Your task to perform on an android device: read, delete, or share a saved page in the chrome app Image 0: 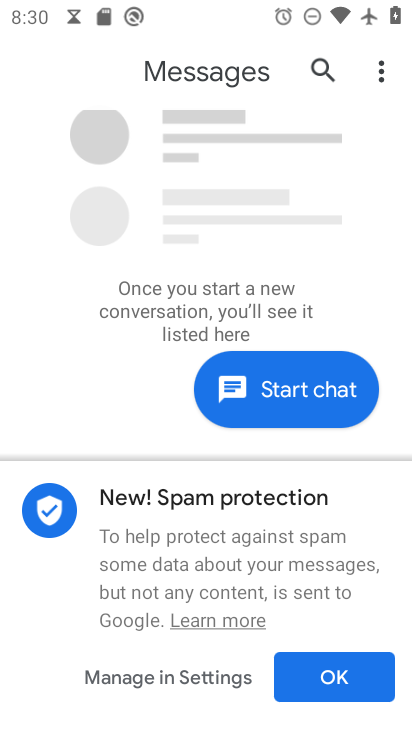
Step 0: press home button
Your task to perform on an android device: read, delete, or share a saved page in the chrome app Image 1: 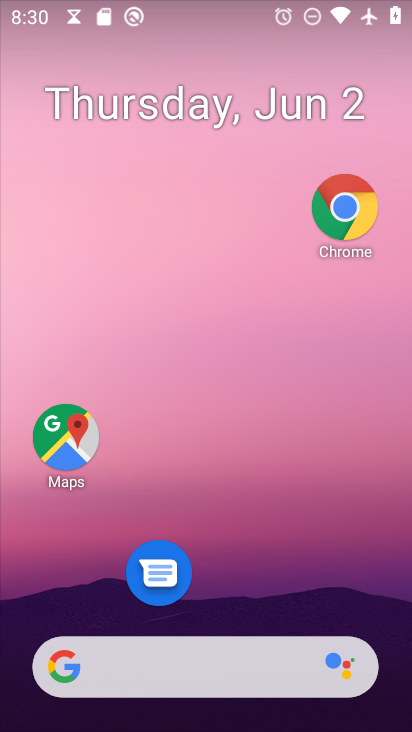
Step 1: click (348, 214)
Your task to perform on an android device: read, delete, or share a saved page in the chrome app Image 2: 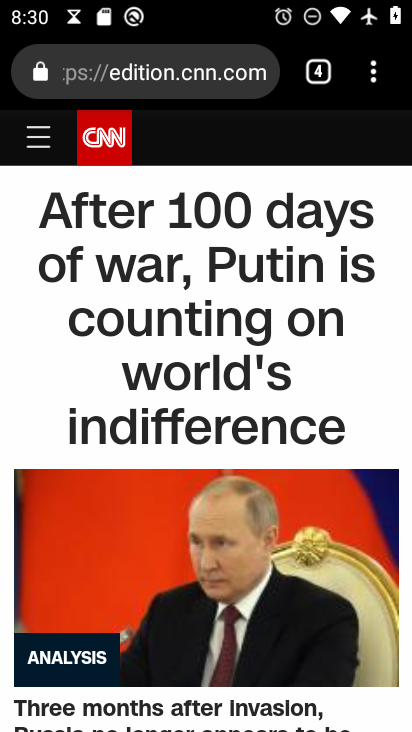
Step 2: drag from (378, 81) to (173, 474)
Your task to perform on an android device: read, delete, or share a saved page in the chrome app Image 3: 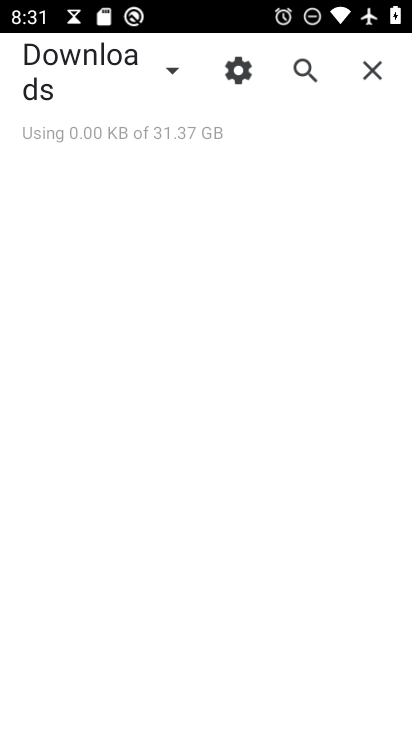
Step 3: click (169, 67)
Your task to perform on an android device: read, delete, or share a saved page in the chrome app Image 4: 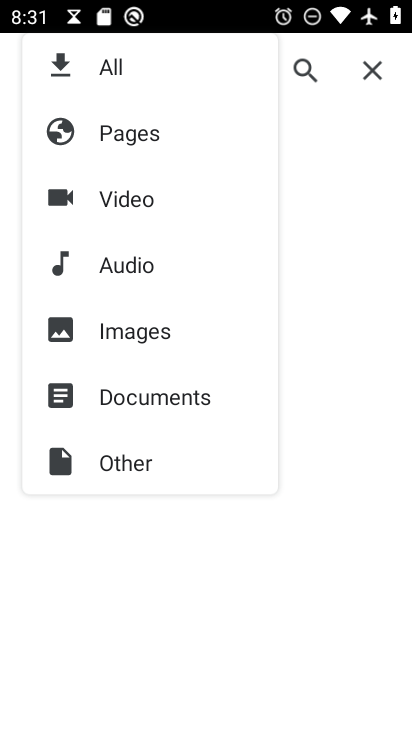
Step 4: click (134, 130)
Your task to perform on an android device: read, delete, or share a saved page in the chrome app Image 5: 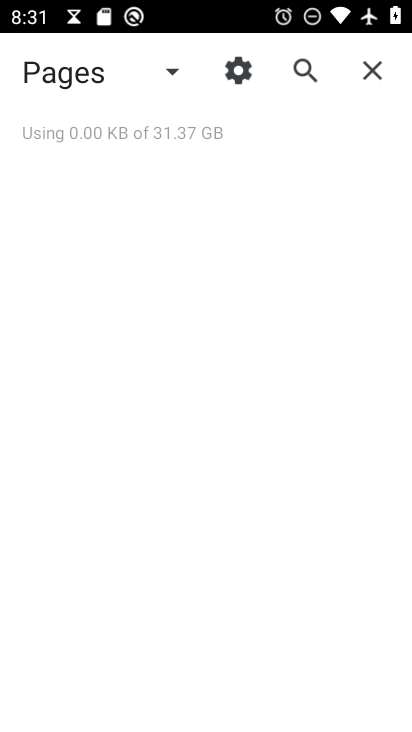
Step 5: task complete